Your task to perform on an android device: Go to Yahoo.com Image 0: 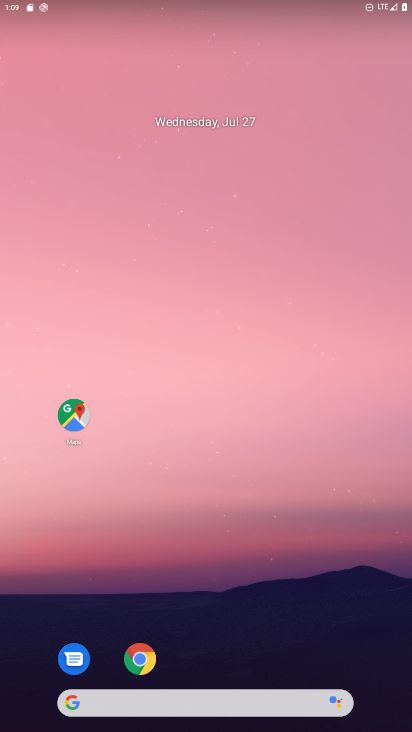
Step 0: click (186, 697)
Your task to perform on an android device: Go to Yahoo.com Image 1: 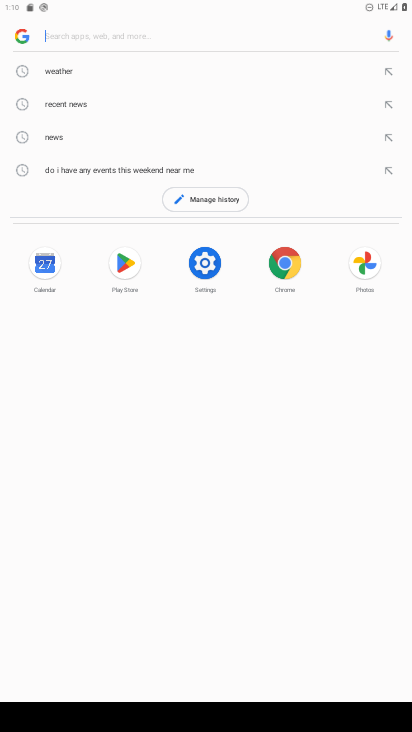
Step 1: type "yahoo.com"
Your task to perform on an android device: Go to Yahoo.com Image 2: 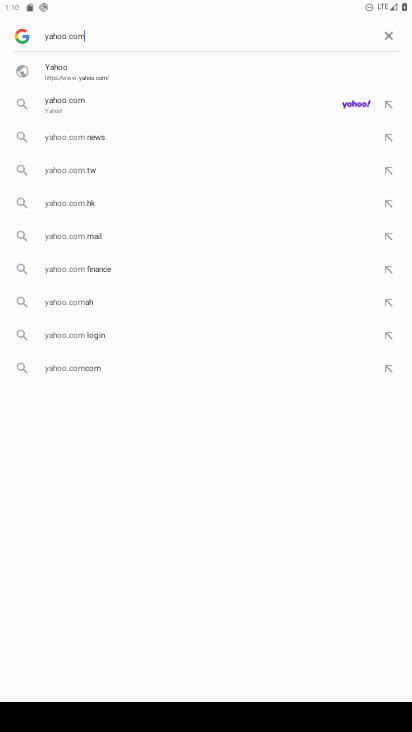
Step 2: click (364, 95)
Your task to perform on an android device: Go to Yahoo.com Image 3: 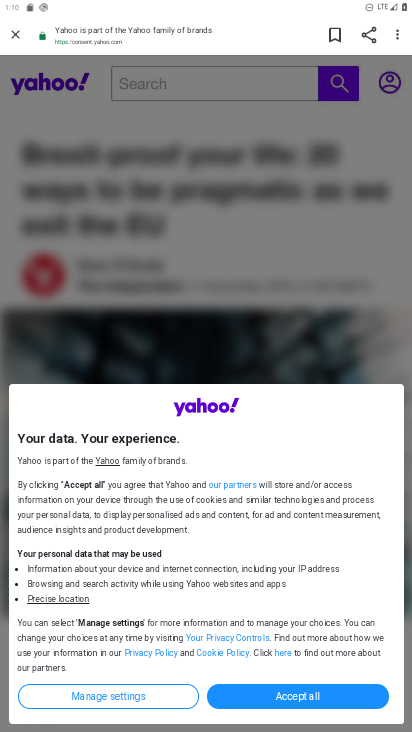
Step 3: click (300, 697)
Your task to perform on an android device: Go to Yahoo.com Image 4: 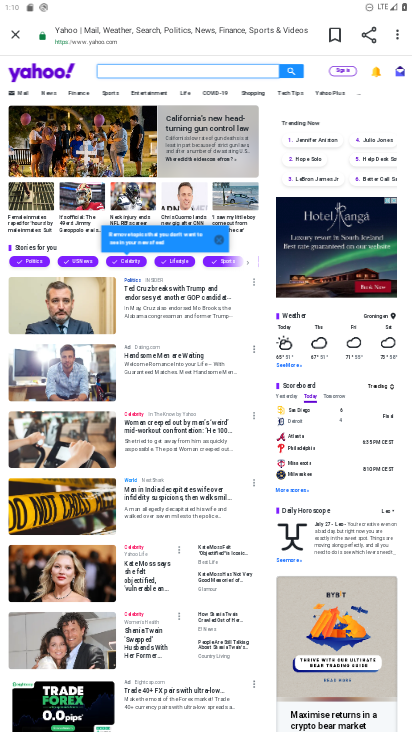
Step 4: task complete